Your task to perform on an android device: Open Android settings Image 0: 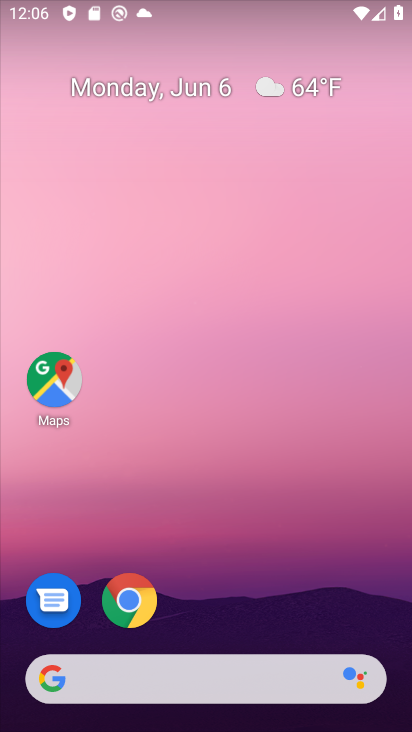
Step 0: drag from (386, 671) to (302, 64)
Your task to perform on an android device: Open Android settings Image 1: 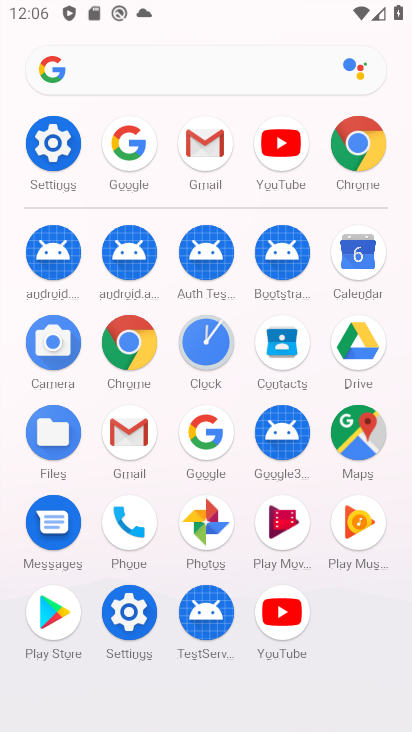
Step 1: click (137, 594)
Your task to perform on an android device: Open Android settings Image 2: 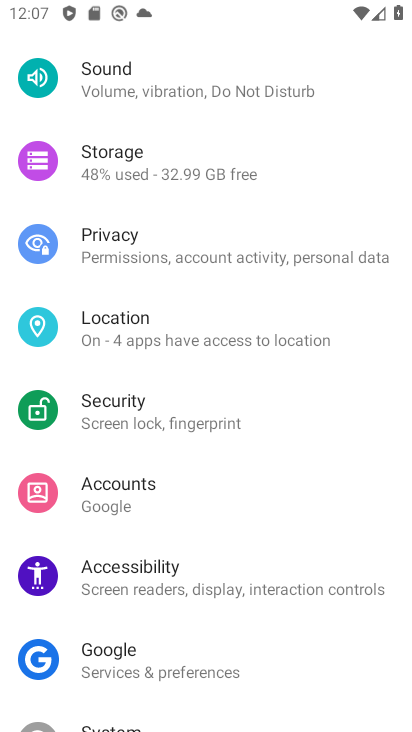
Step 2: task complete